Your task to perform on an android device: open chrome and create a bookmark for the current page Image 0: 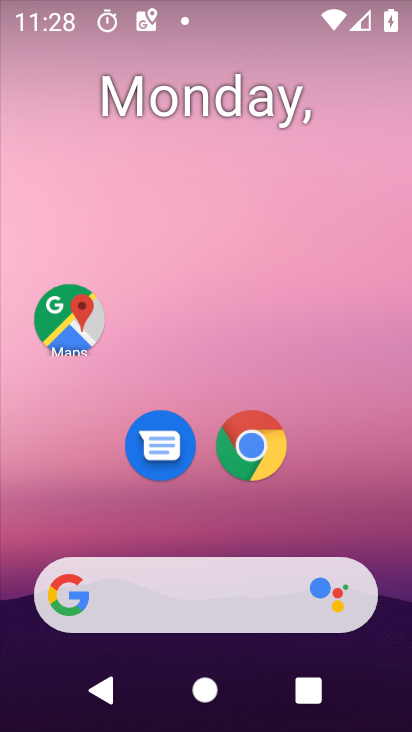
Step 0: click (253, 437)
Your task to perform on an android device: open chrome and create a bookmark for the current page Image 1: 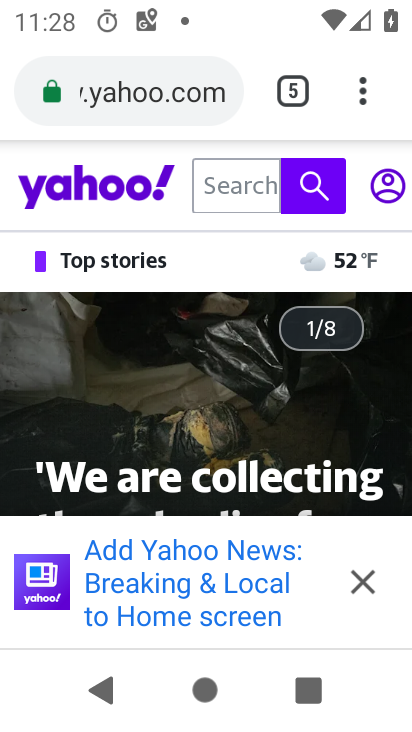
Step 1: task complete